Your task to perform on an android device: Search for pizza restaurants on Maps Image 0: 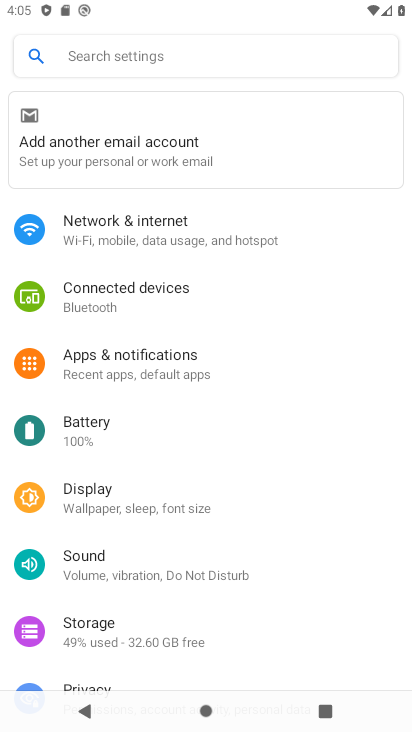
Step 0: press home button
Your task to perform on an android device: Search for pizza restaurants on Maps Image 1: 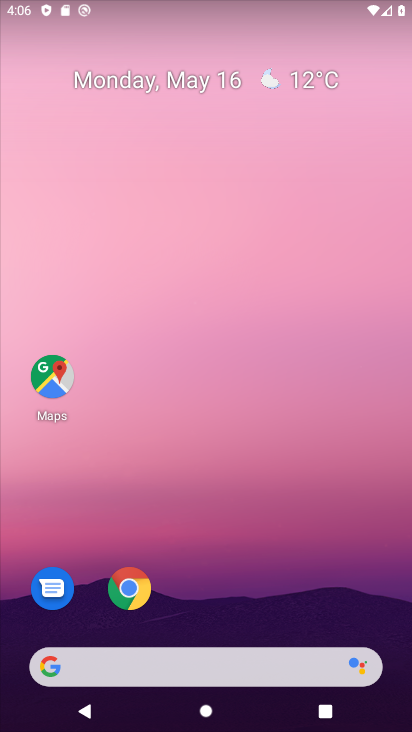
Step 1: click (49, 380)
Your task to perform on an android device: Search for pizza restaurants on Maps Image 2: 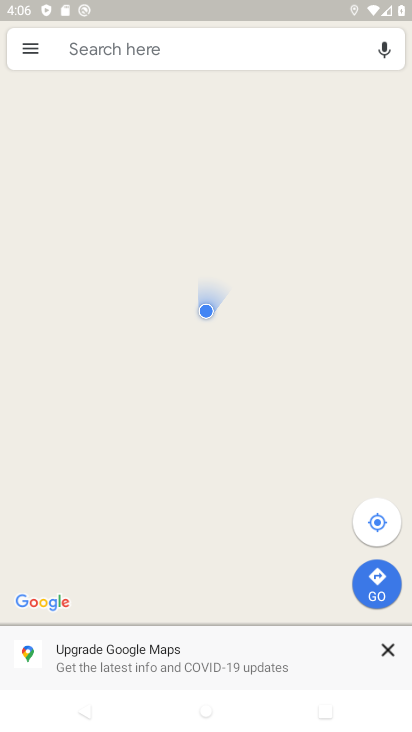
Step 2: click (192, 53)
Your task to perform on an android device: Search for pizza restaurants on Maps Image 3: 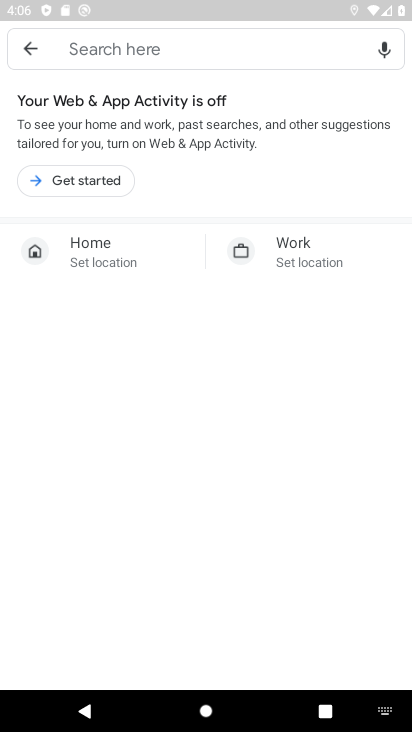
Step 3: type "pizza restaurants"
Your task to perform on an android device: Search for pizza restaurants on Maps Image 4: 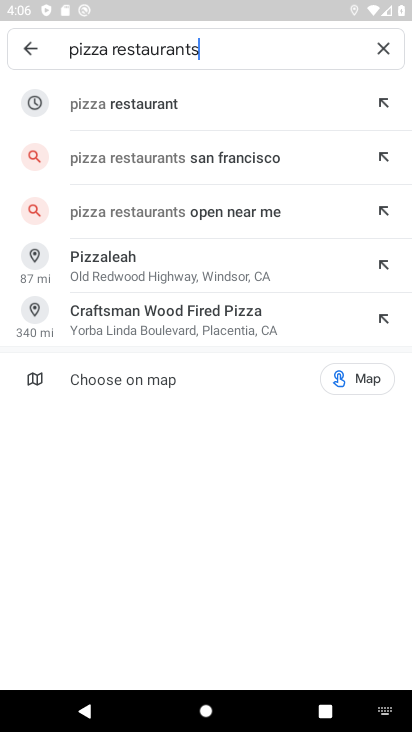
Step 4: click (166, 107)
Your task to perform on an android device: Search for pizza restaurants on Maps Image 5: 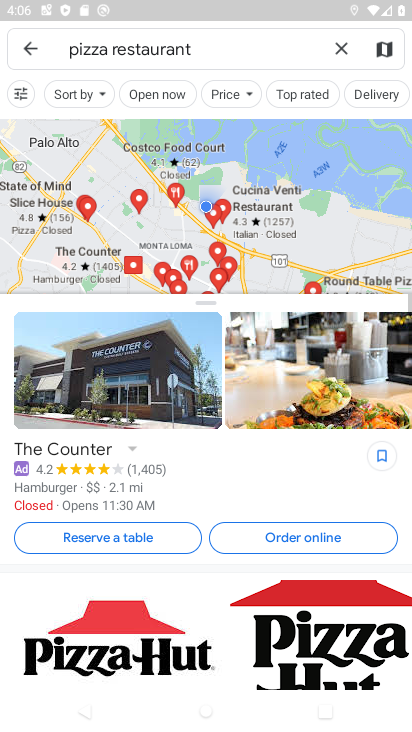
Step 5: task complete